Your task to perform on an android device: Is it going to rain today? Image 0: 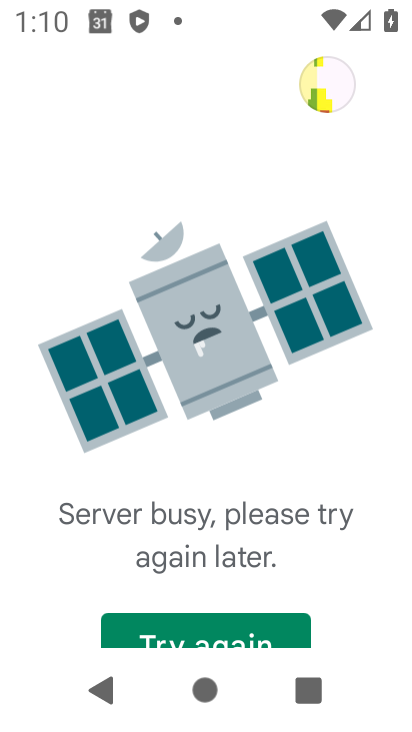
Step 0: press home button
Your task to perform on an android device: Is it going to rain today? Image 1: 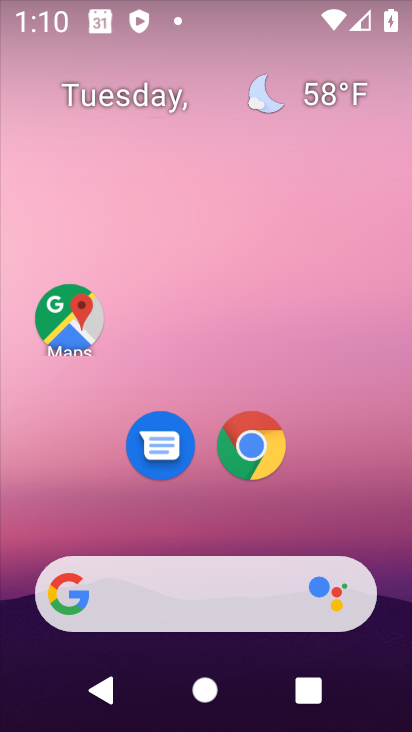
Step 1: click (323, 104)
Your task to perform on an android device: Is it going to rain today? Image 2: 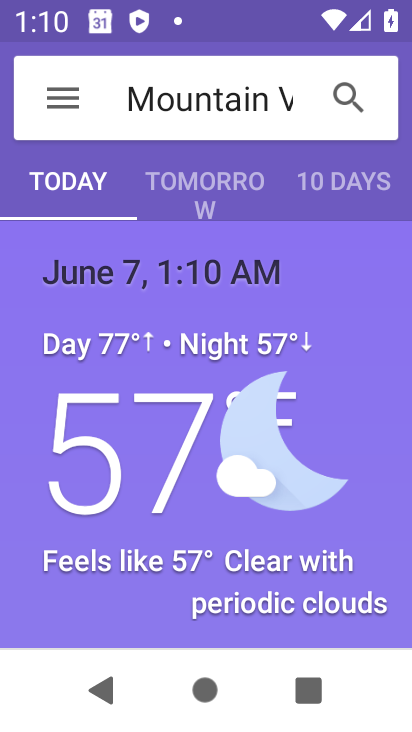
Step 2: task complete